Your task to perform on an android device: turn off airplane mode Image 0: 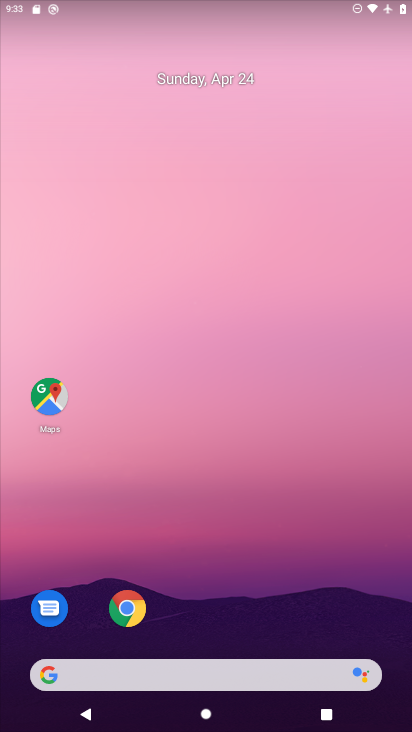
Step 0: drag from (226, 634) to (226, 230)
Your task to perform on an android device: turn off airplane mode Image 1: 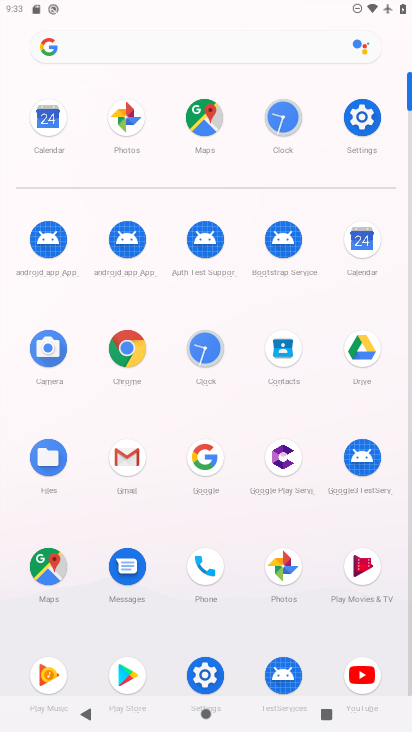
Step 1: click (352, 123)
Your task to perform on an android device: turn off airplane mode Image 2: 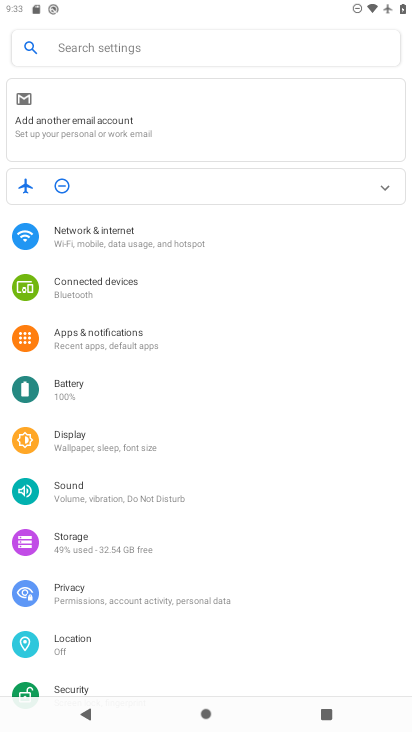
Step 2: click (125, 241)
Your task to perform on an android device: turn off airplane mode Image 3: 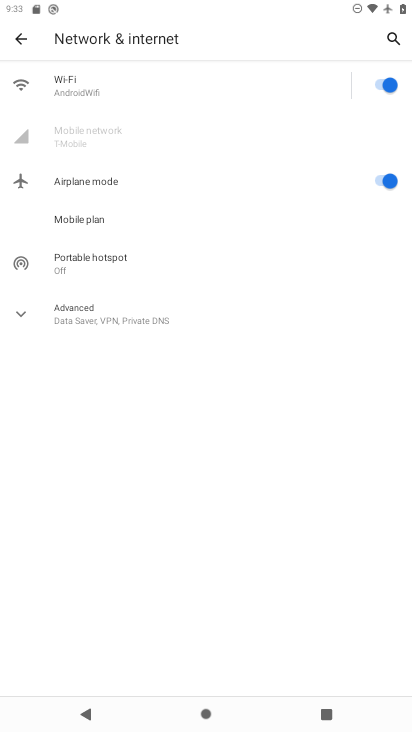
Step 3: click (375, 175)
Your task to perform on an android device: turn off airplane mode Image 4: 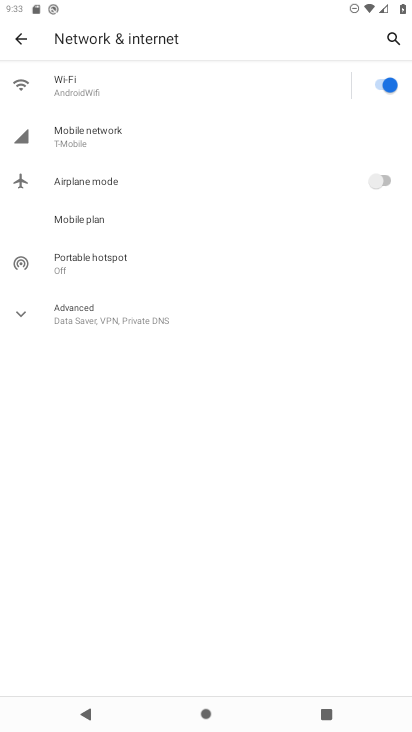
Step 4: task complete